Your task to perform on an android device: Show me productivity apps on the Play Store Image 0: 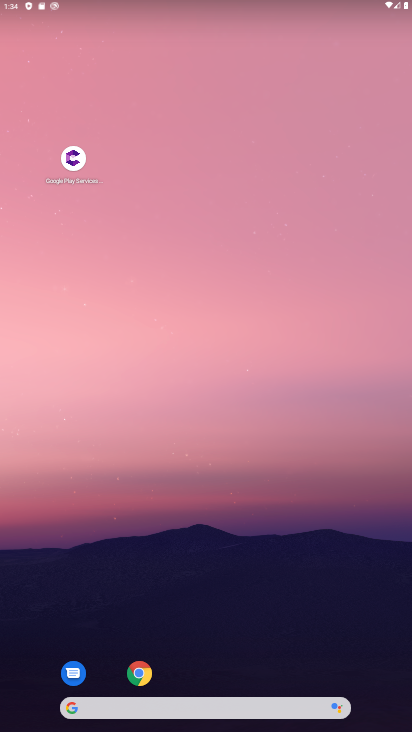
Step 0: press home button
Your task to perform on an android device: Show me productivity apps on the Play Store Image 1: 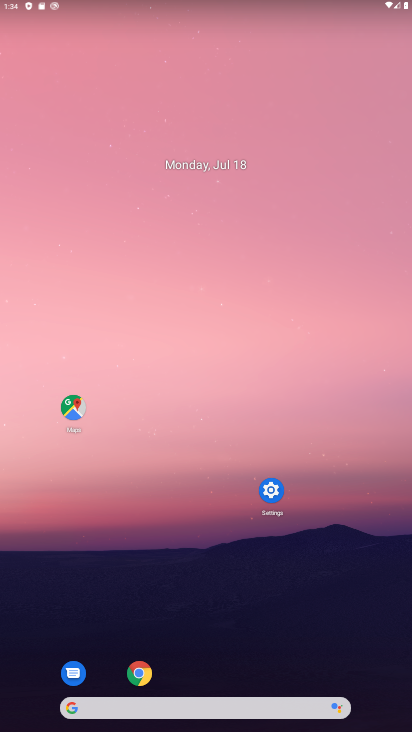
Step 1: drag from (288, 671) to (130, 174)
Your task to perform on an android device: Show me productivity apps on the Play Store Image 2: 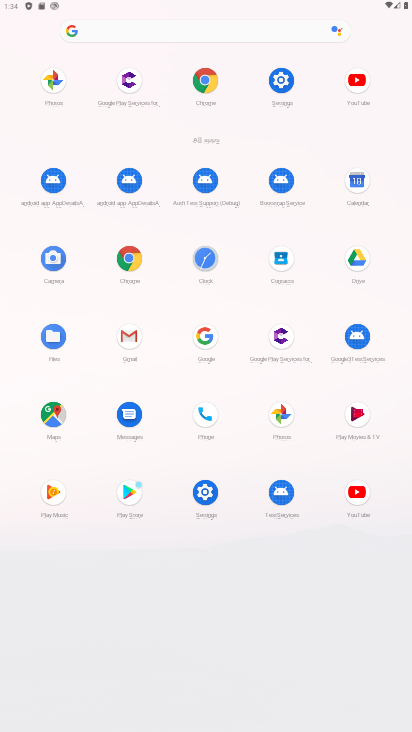
Step 2: click (131, 498)
Your task to perform on an android device: Show me productivity apps on the Play Store Image 3: 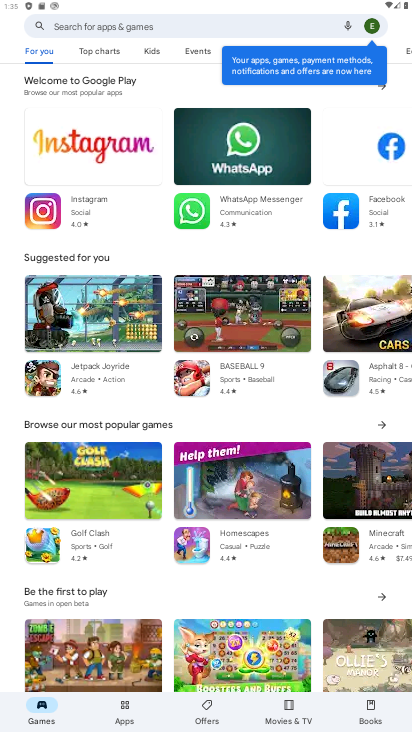
Step 3: click (132, 24)
Your task to perform on an android device: Show me productivity apps on the Play Store Image 4: 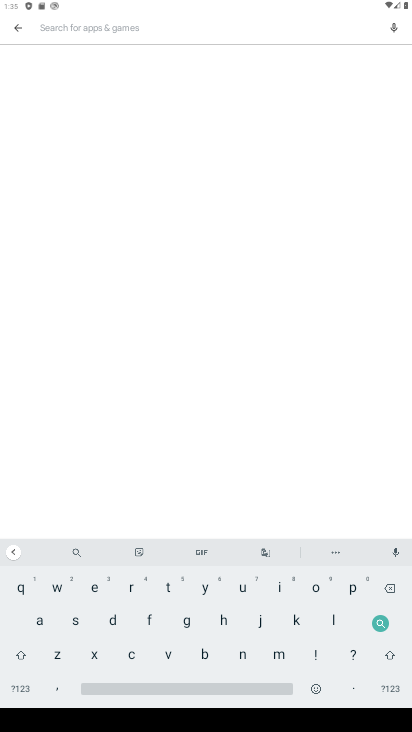
Step 4: click (351, 590)
Your task to perform on an android device: Show me productivity apps on the Play Store Image 5: 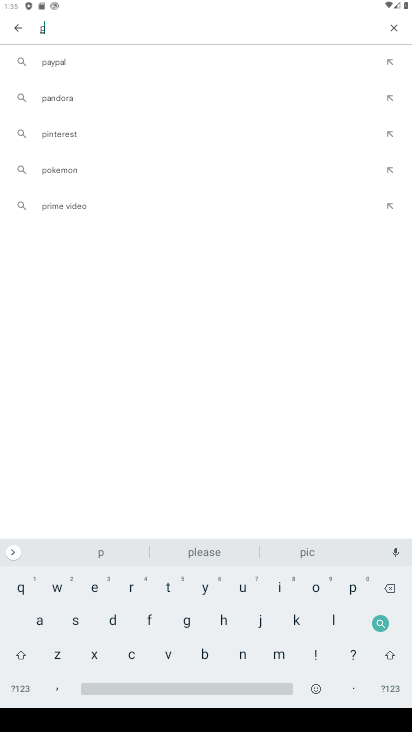
Step 5: click (127, 584)
Your task to perform on an android device: Show me productivity apps on the Play Store Image 6: 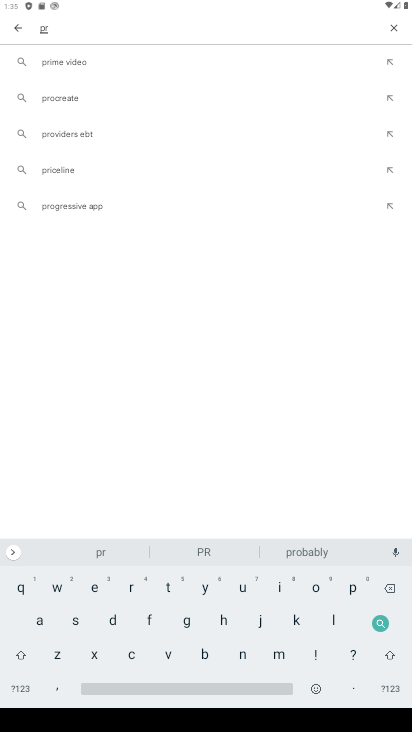
Step 6: click (312, 585)
Your task to perform on an android device: Show me productivity apps on the Play Store Image 7: 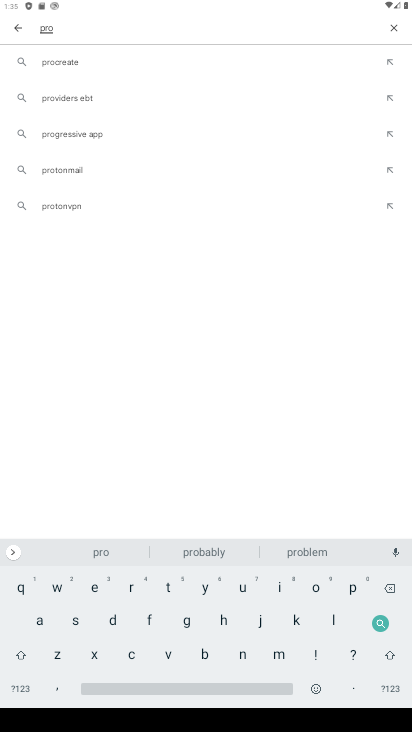
Step 7: click (110, 615)
Your task to perform on an android device: Show me productivity apps on the Play Store Image 8: 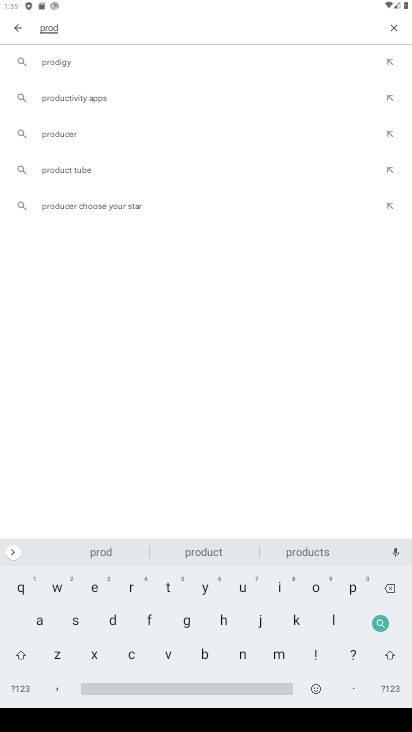
Step 8: click (64, 95)
Your task to perform on an android device: Show me productivity apps on the Play Store Image 9: 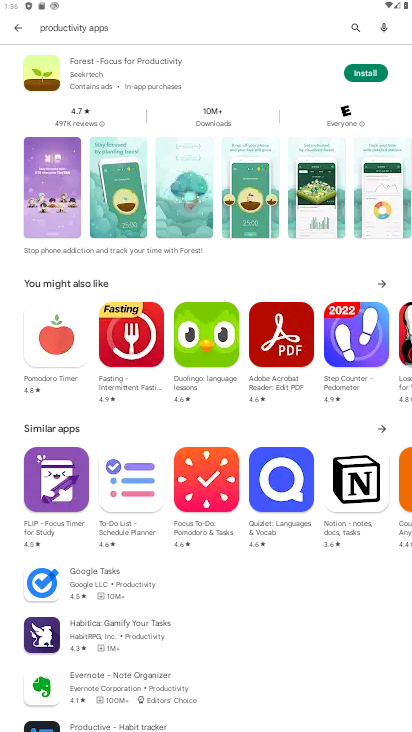
Step 9: task complete